Your task to perform on an android device: change alarm snooze length Image 0: 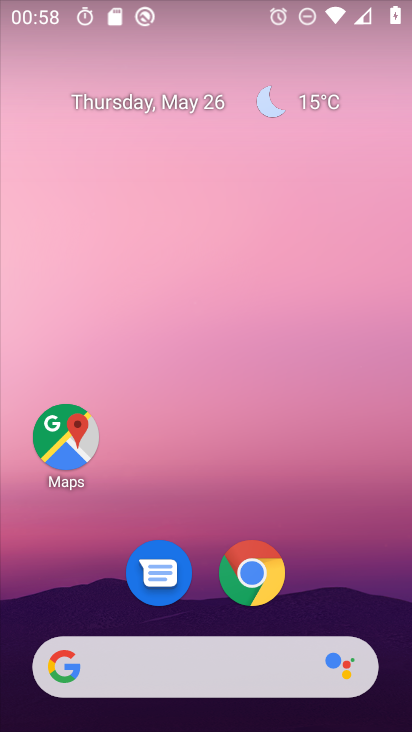
Step 0: drag from (341, 598) to (332, 11)
Your task to perform on an android device: change alarm snooze length Image 1: 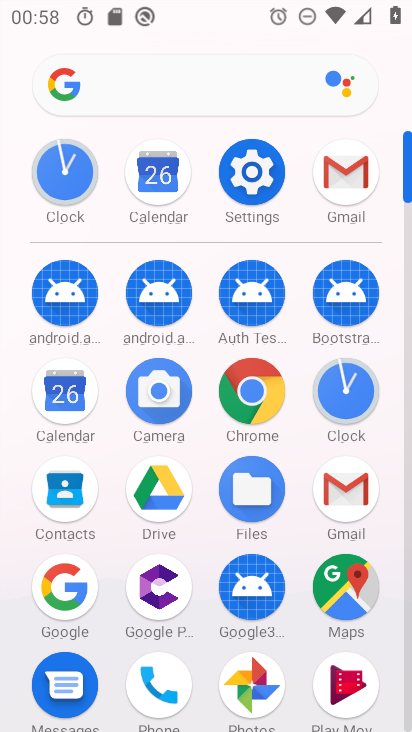
Step 1: click (71, 182)
Your task to perform on an android device: change alarm snooze length Image 2: 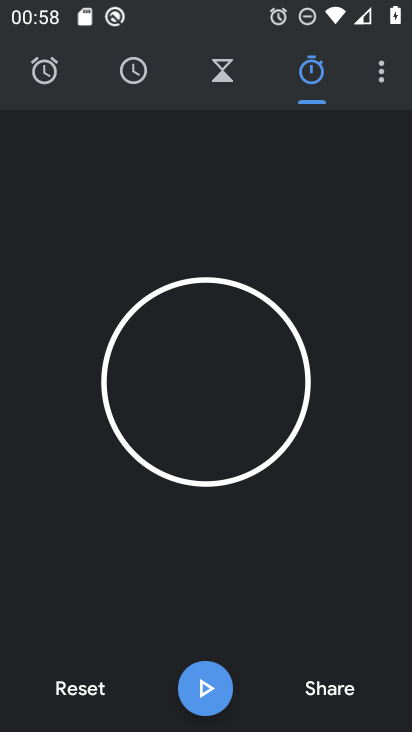
Step 2: click (382, 82)
Your task to perform on an android device: change alarm snooze length Image 3: 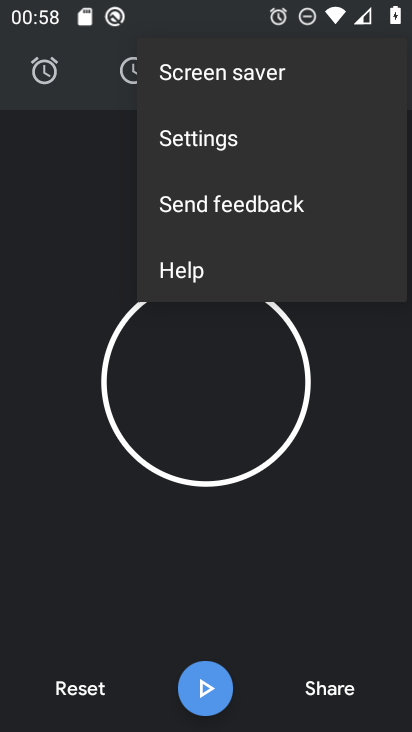
Step 3: click (191, 149)
Your task to perform on an android device: change alarm snooze length Image 4: 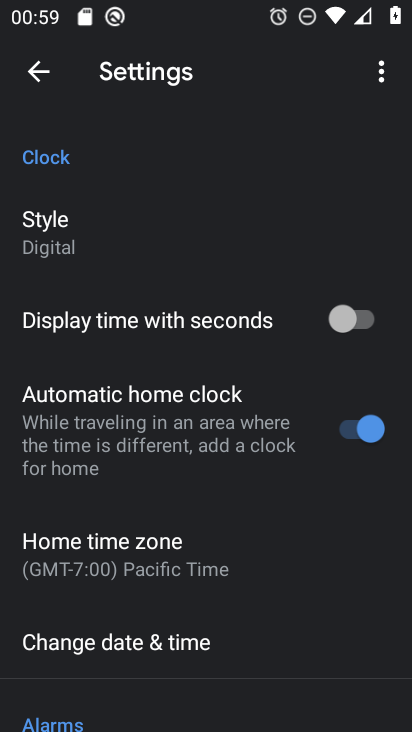
Step 4: drag from (193, 463) to (181, 211)
Your task to perform on an android device: change alarm snooze length Image 5: 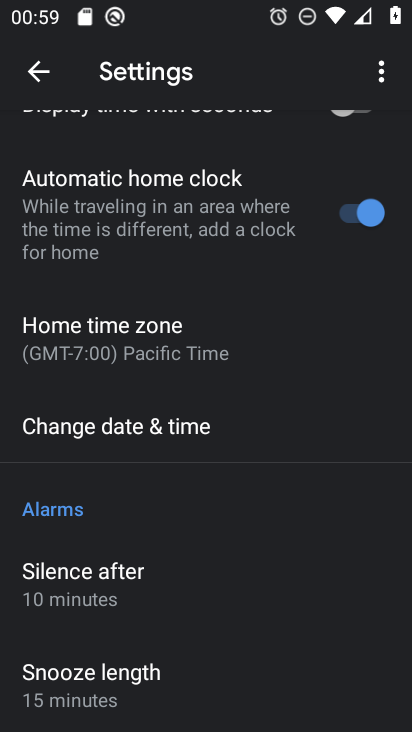
Step 5: drag from (260, 589) to (239, 383)
Your task to perform on an android device: change alarm snooze length Image 6: 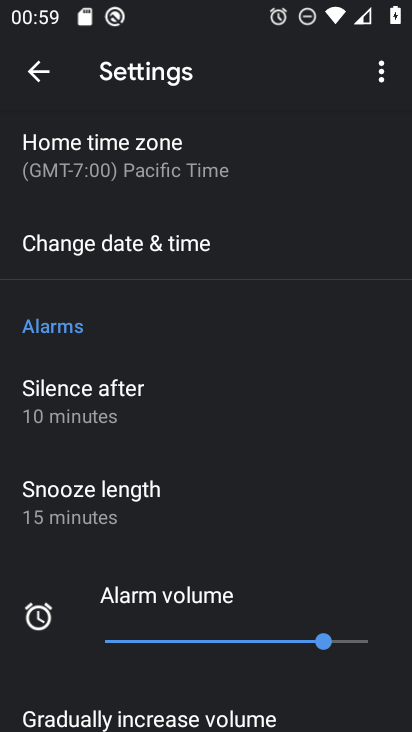
Step 6: click (86, 502)
Your task to perform on an android device: change alarm snooze length Image 7: 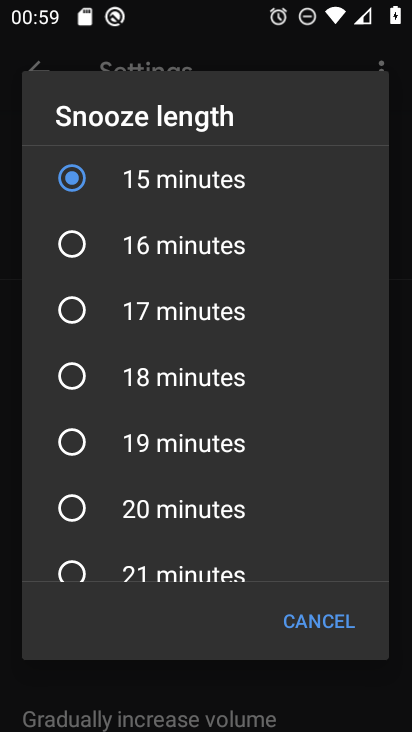
Step 7: click (78, 376)
Your task to perform on an android device: change alarm snooze length Image 8: 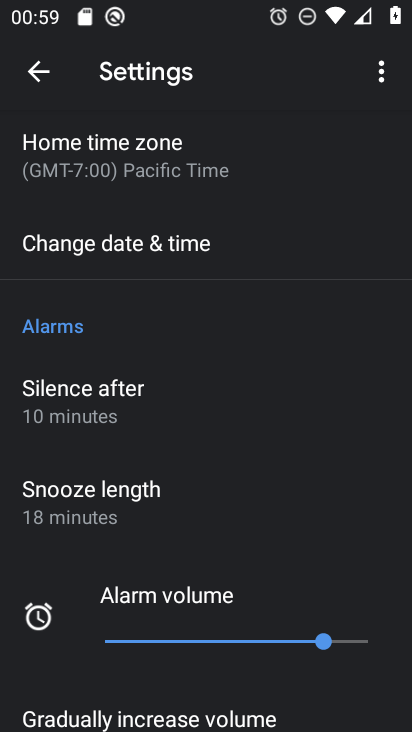
Step 8: task complete